Your task to perform on an android device: What's on my calendar today? Image 0: 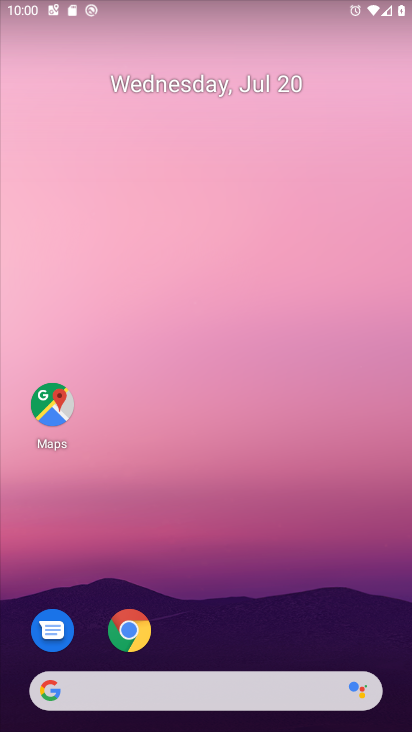
Step 0: drag from (298, 557) to (352, 308)
Your task to perform on an android device: What's on my calendar today? Image 1: 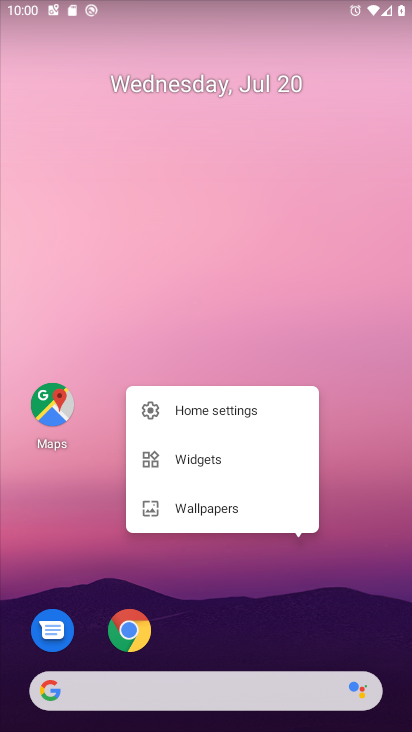
Step 1: drag from (194, 683) to (204, 81)
Your task to perform on an android device: What's on my calendar today? Image 2: 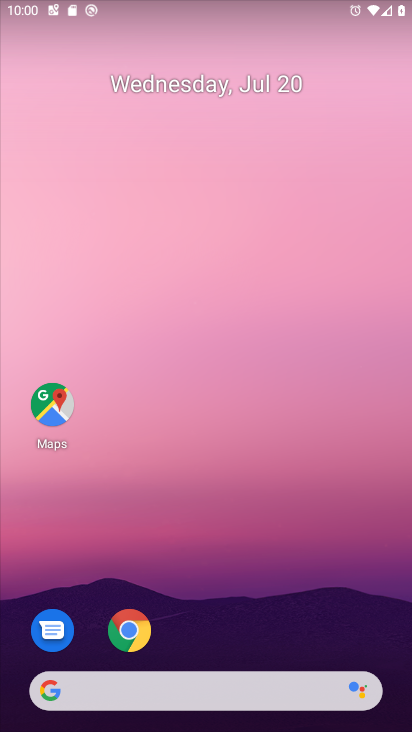
Step 2: drag from (210, 695) to (262, 143)
Your task to perform on an android device: What's on my calendar today? Image 3: 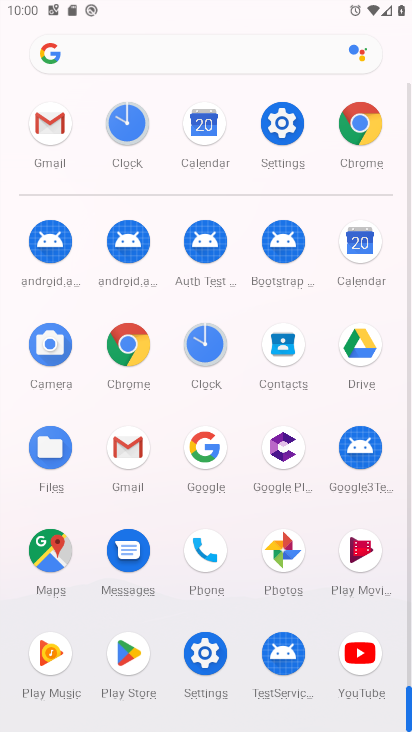
Step 3: click (354, 251)
Your task to perform on an android device: What's on my calendar today? Image 4: 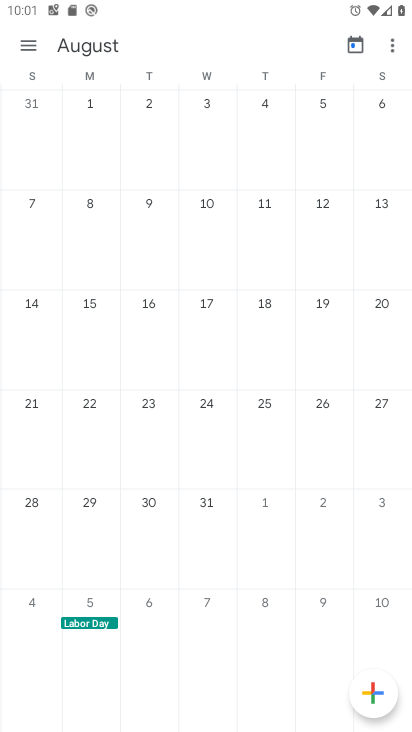
Step 4: press home button
Your task to perform on an android device: What's on my calendar today? Image 5: 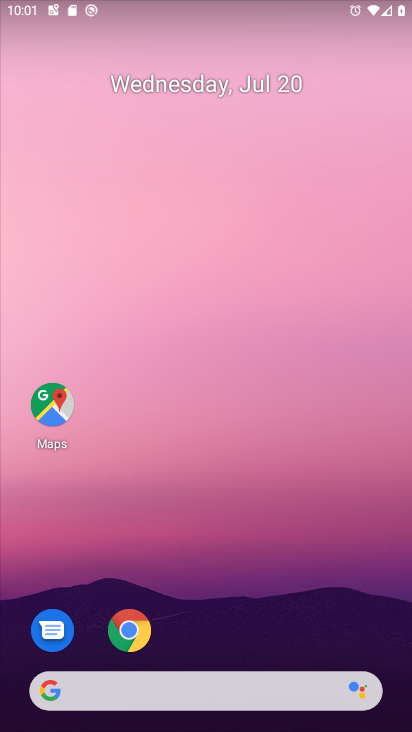
Step 5: drag from (178, 678) to (199, 31)
Your task to perform on an android device: What's on my calendar today? Image 6: 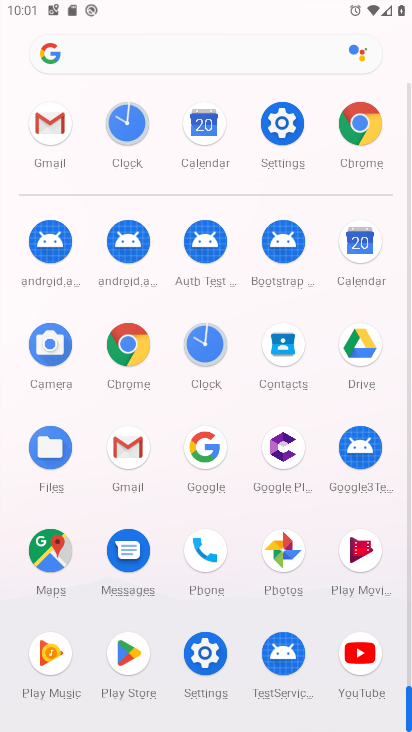
Step 6: click (371, 243)
Your task to perform on an android device: What's on my calendar today? Image 7: 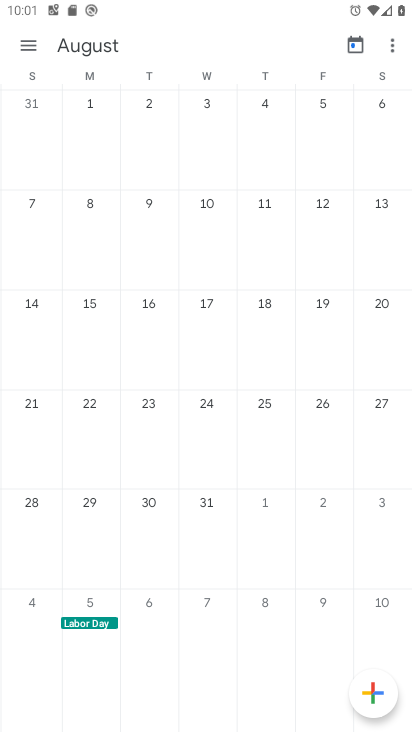
Step 7: drag from (42, 228) to (410, 202)
Your task to perform on an android device: What's on my calendar today? Image 8: 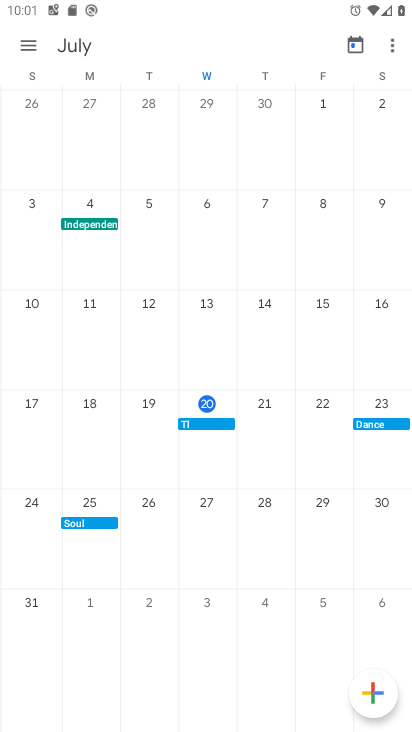
Step 8: click (210, 405)
Your task to perform on an android device: What's on my calendar today? Image 9: 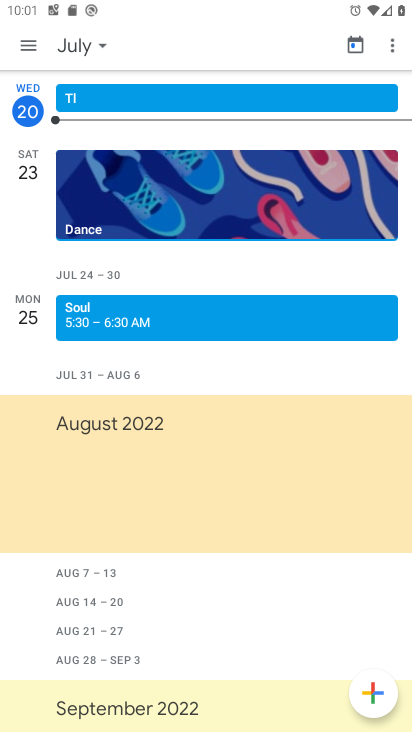
Step 9: task complete